Your task to perform on an android device: turn off airplane mode Image 0: 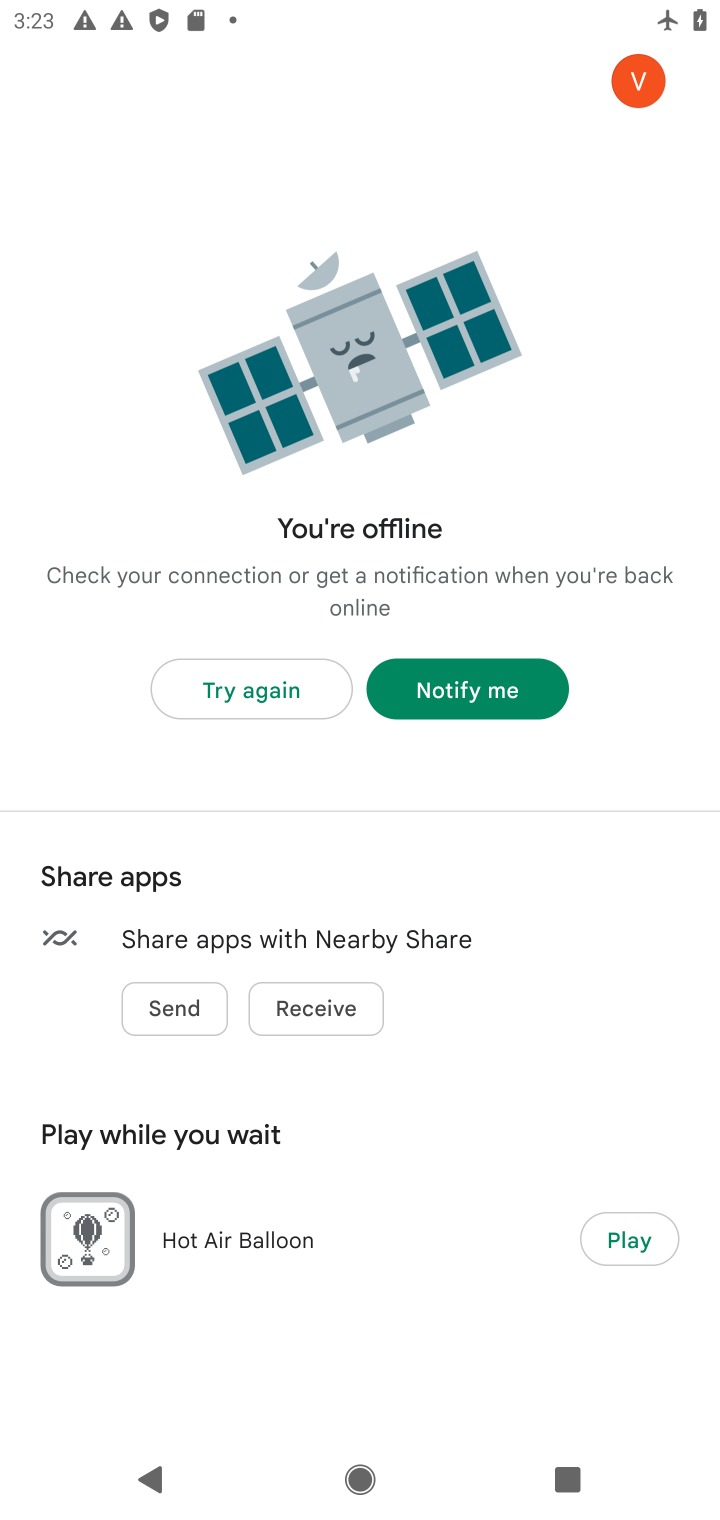
Step 0: press home button
Your task to perform on an android device: turn off airplane mode Image 1: 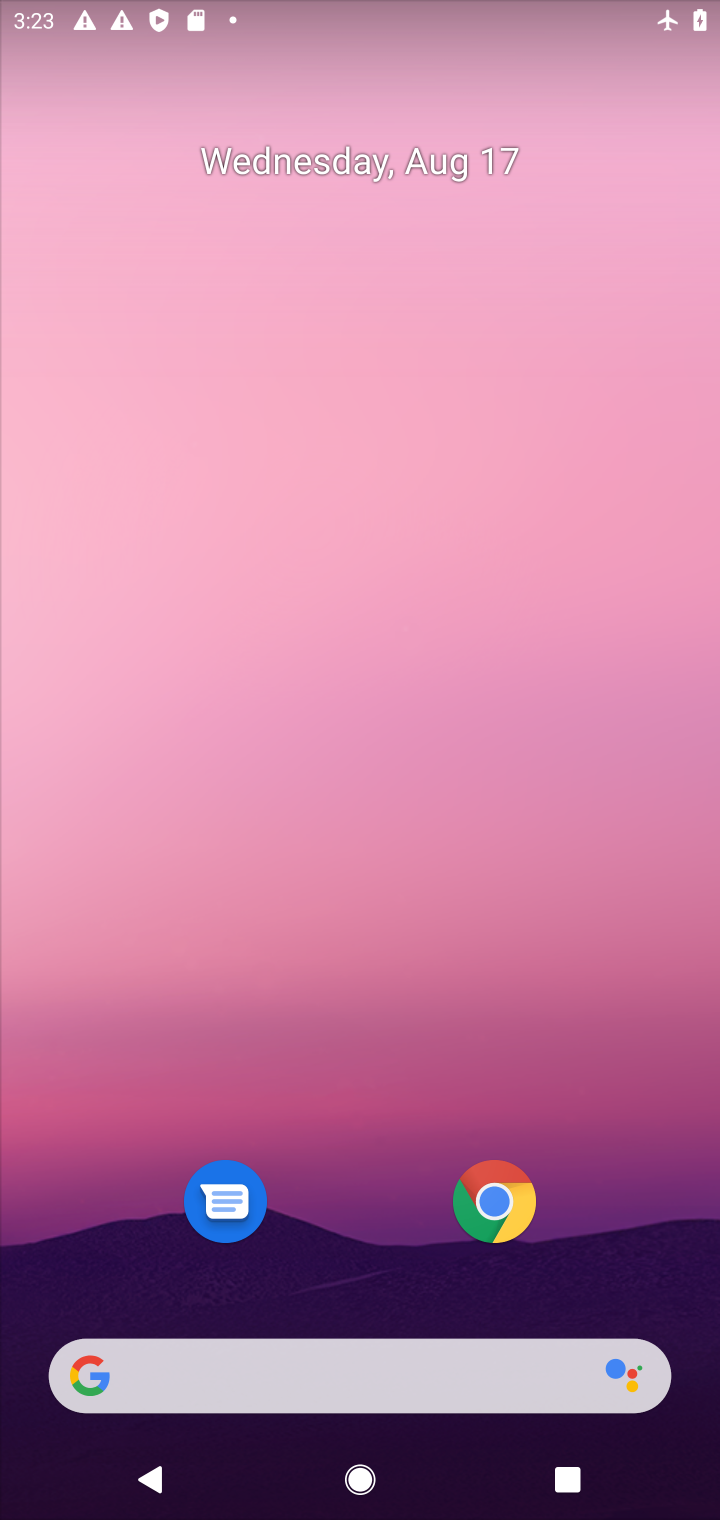
Step 1: drag from (390, 631) to (457, 114)
Your task to perform on an android device: turn off airplane mode Image 2: 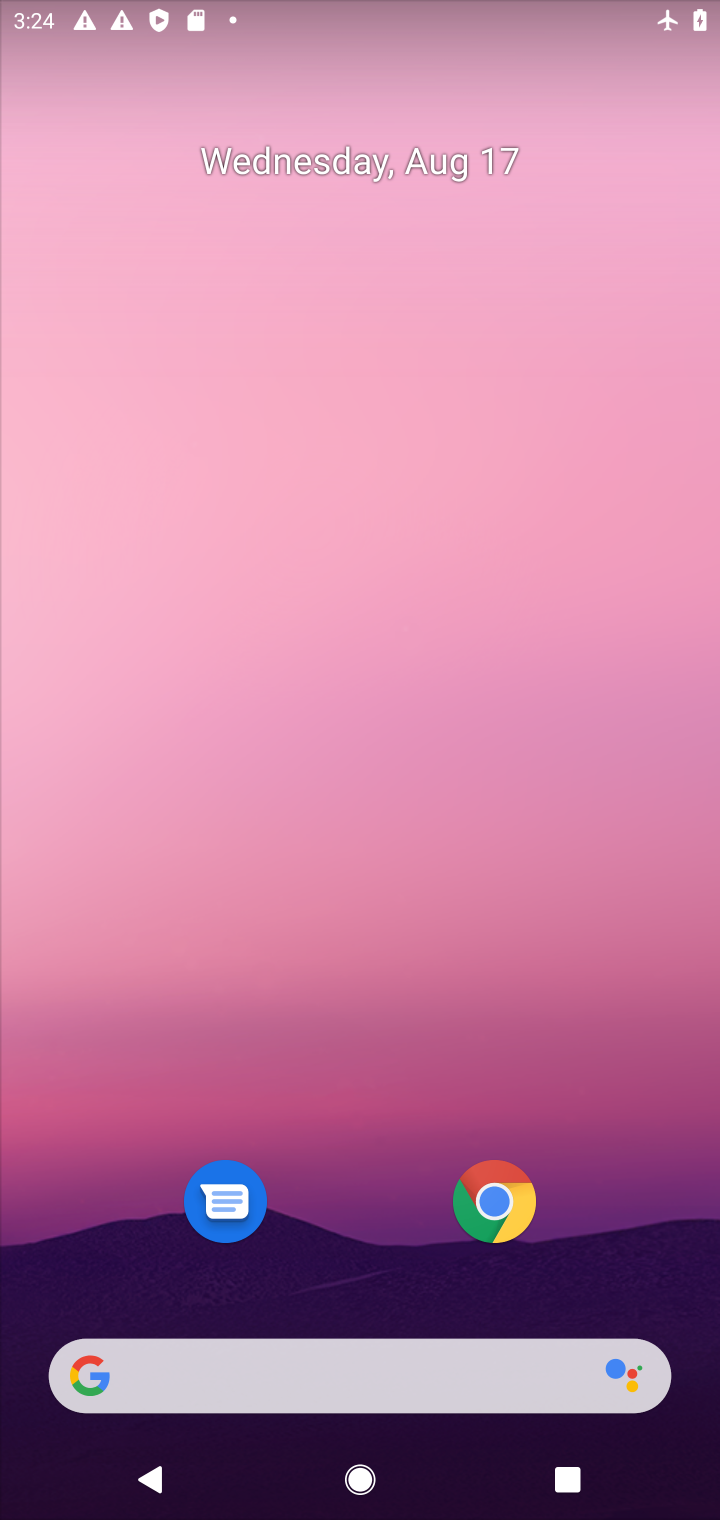
Step 2: drag from (368, 1034) to (404, 0)
Your task to perform on an android device: turn off airplane mode Image 3: 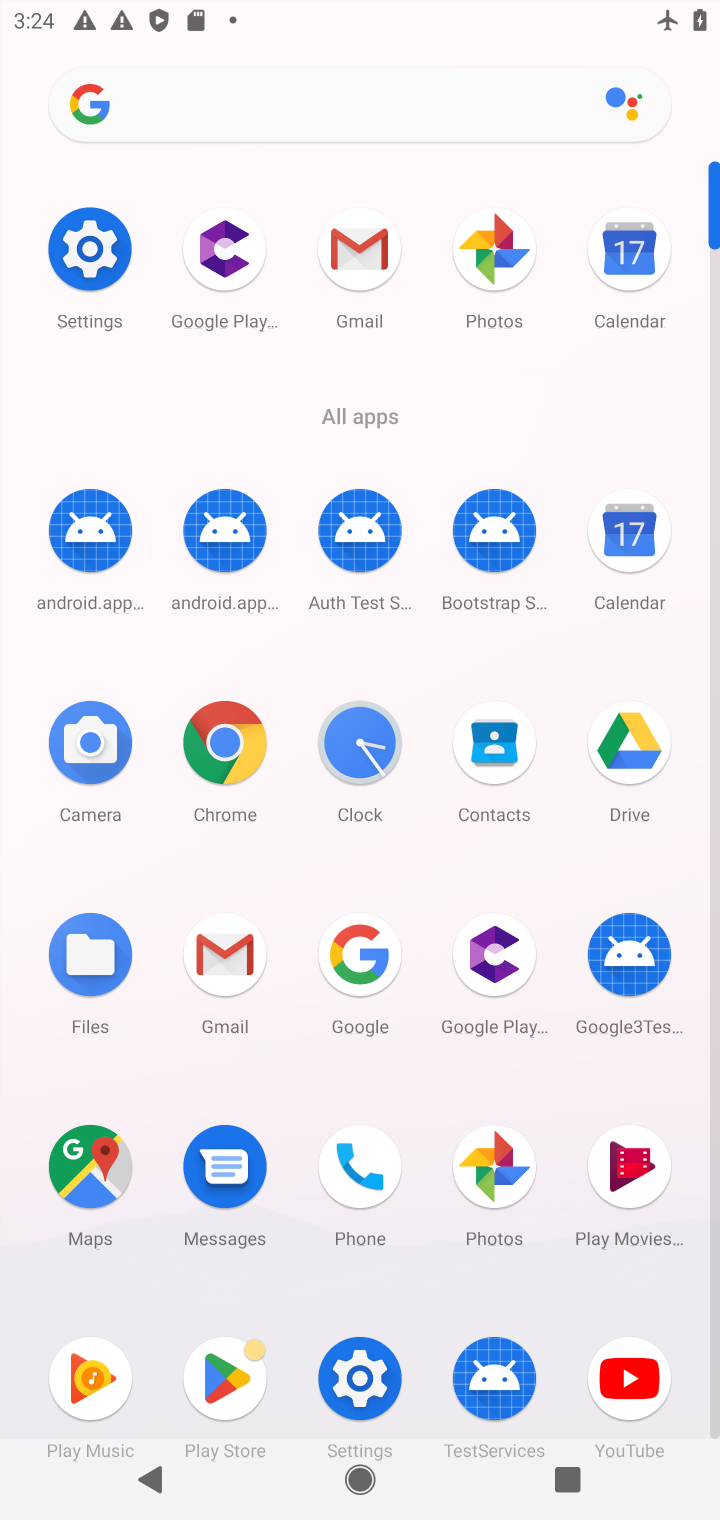
Step 3: click (71, 312)
Your task to perform on an android device: turn off airplane mode Image 4: 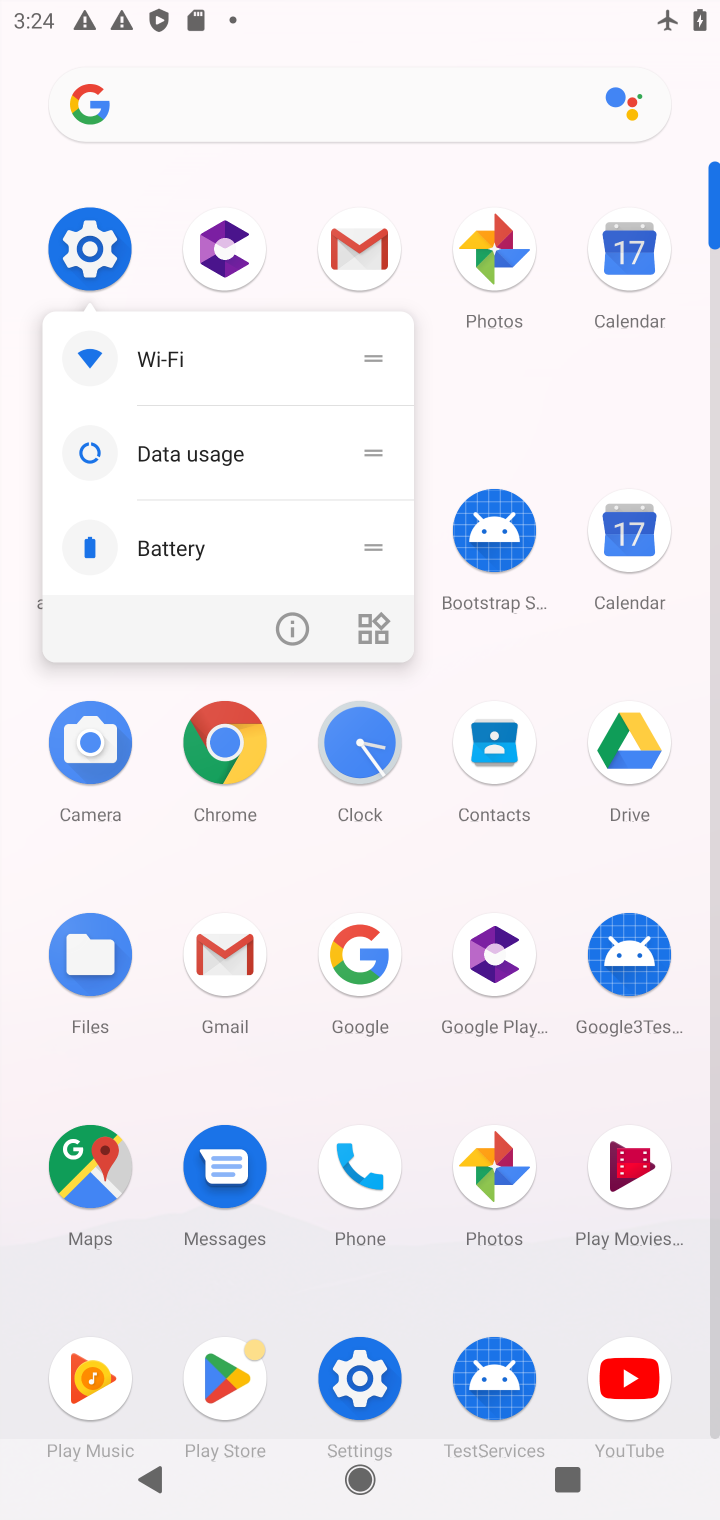
Step 4: click (72, 250)
Your task to perform on an android device: turn off airplane mode Image 5: 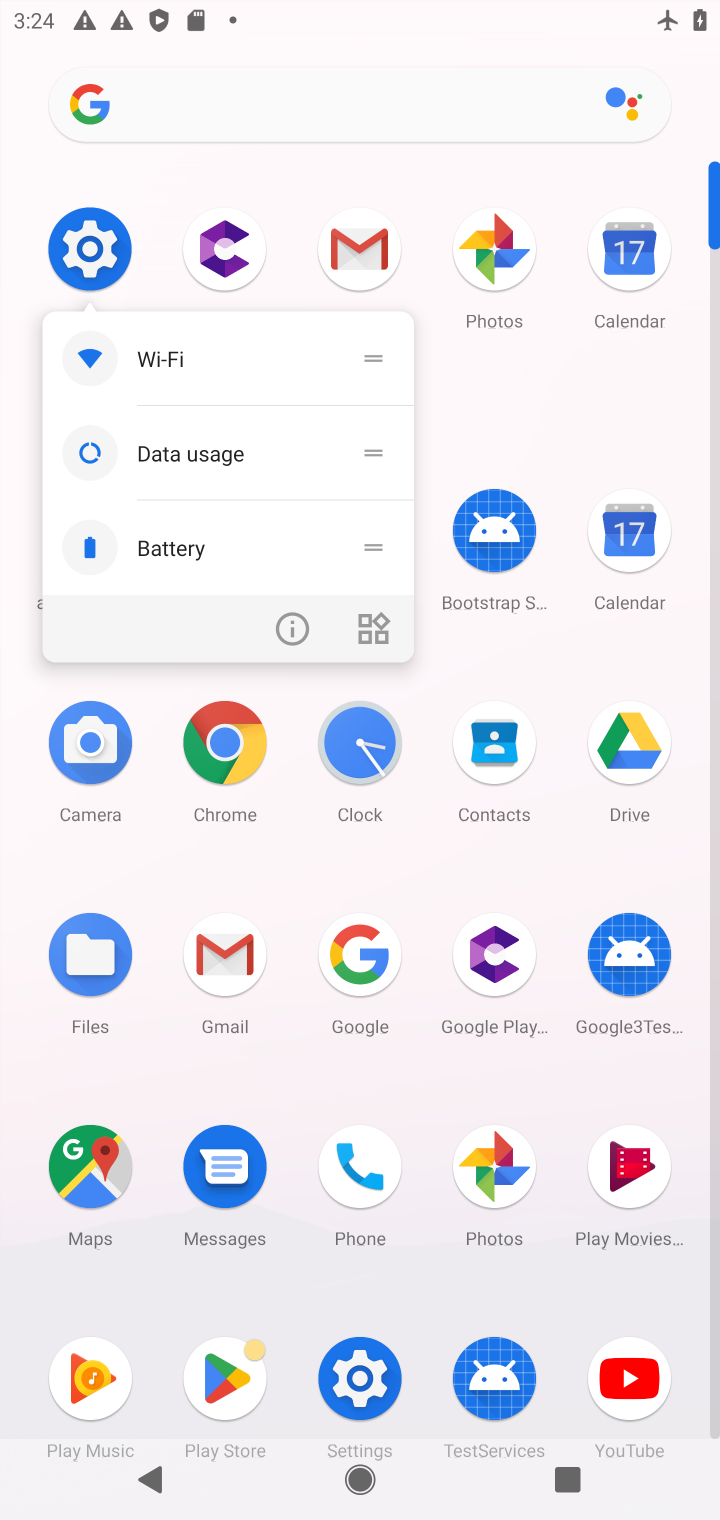
Step 5: click (41, 238)
Your task to perform on an android device: turn off airplane mode Image 6: 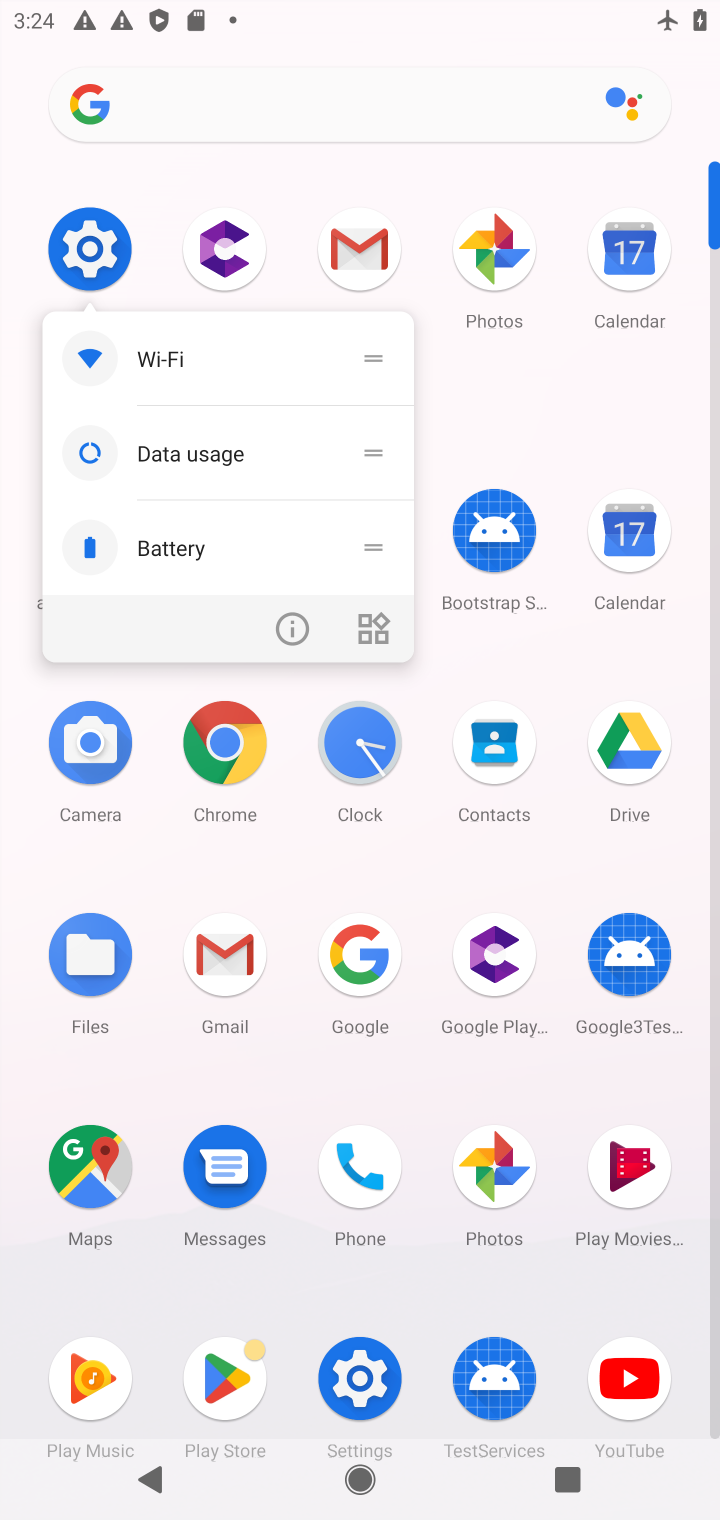
Step 6: click (78, 248)
Your task to perform on an android device: turn off airplane mode Image 7: 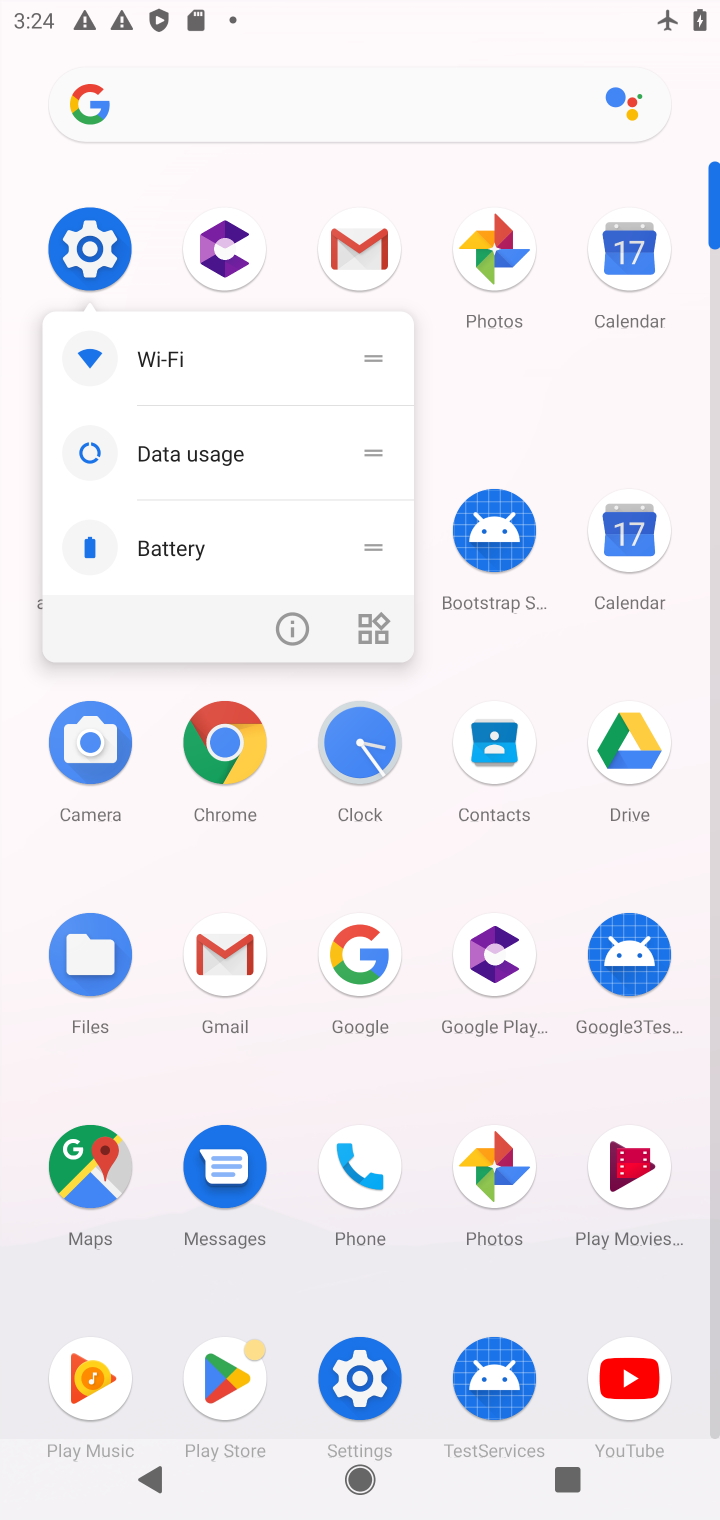
Step 7: click (117, 225)
Your task to perform on an android device: turn off airplane mode Image 8: 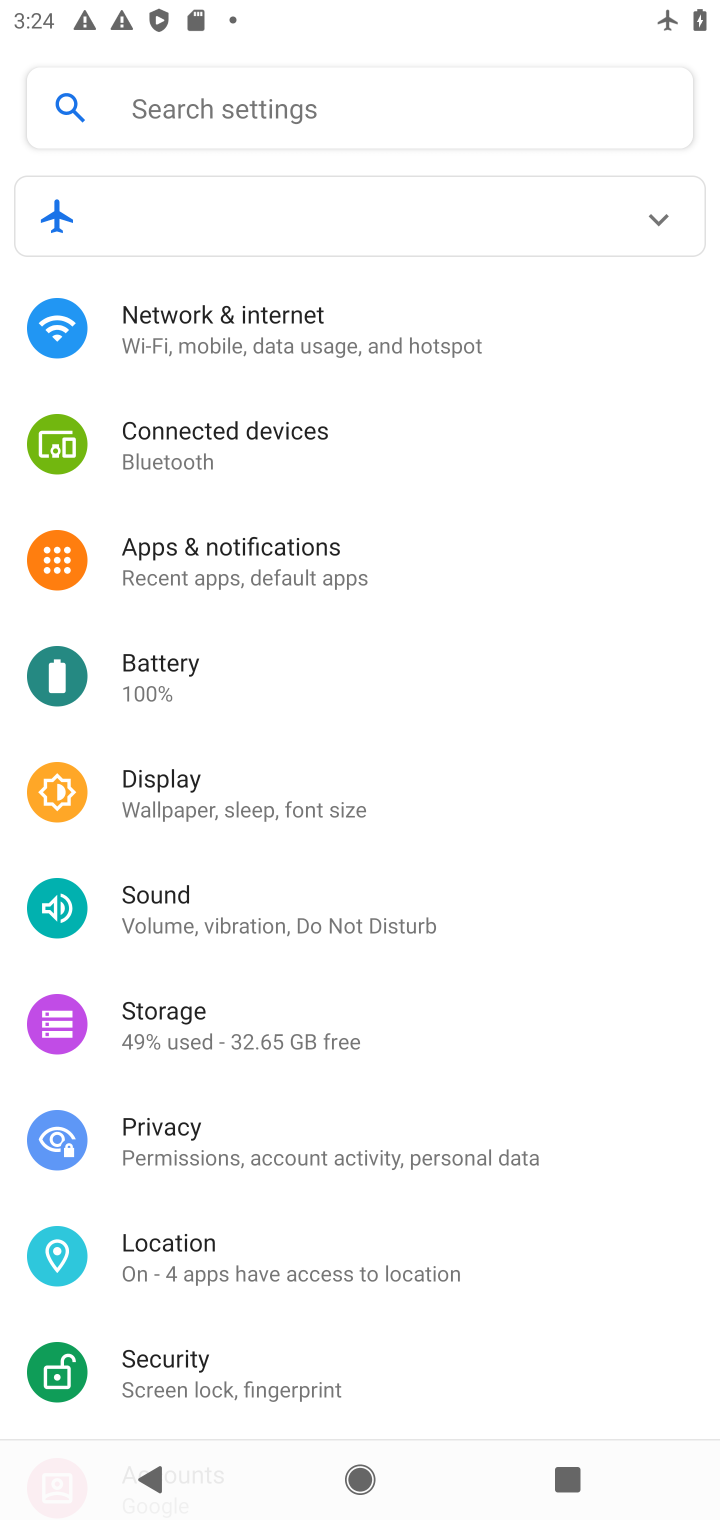
Step 8: click (301, 340)
Your task to perform on an android device: turn off airplane mode Image 9: 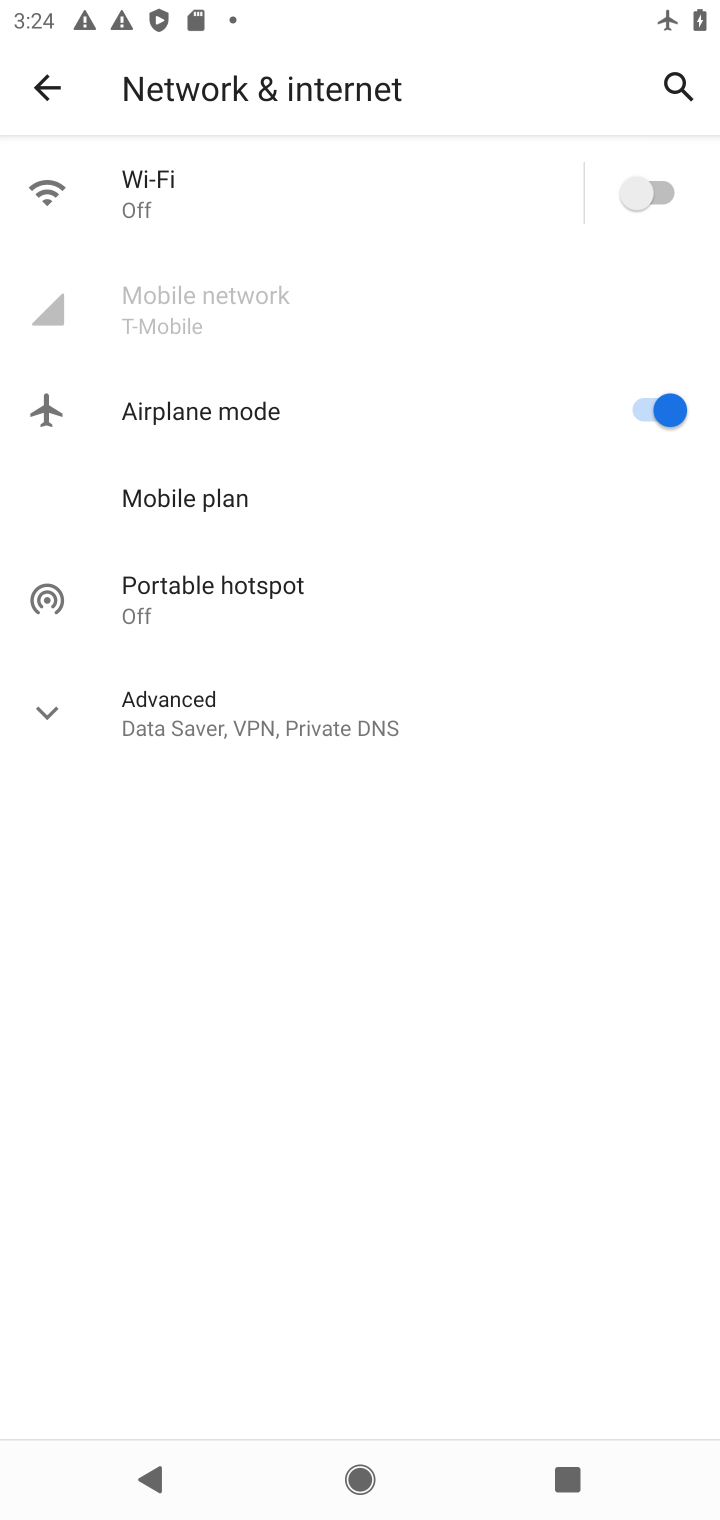
Step 9: click (631, 413)
Your task to perform on an android device: turn off airplane mode Image 10: 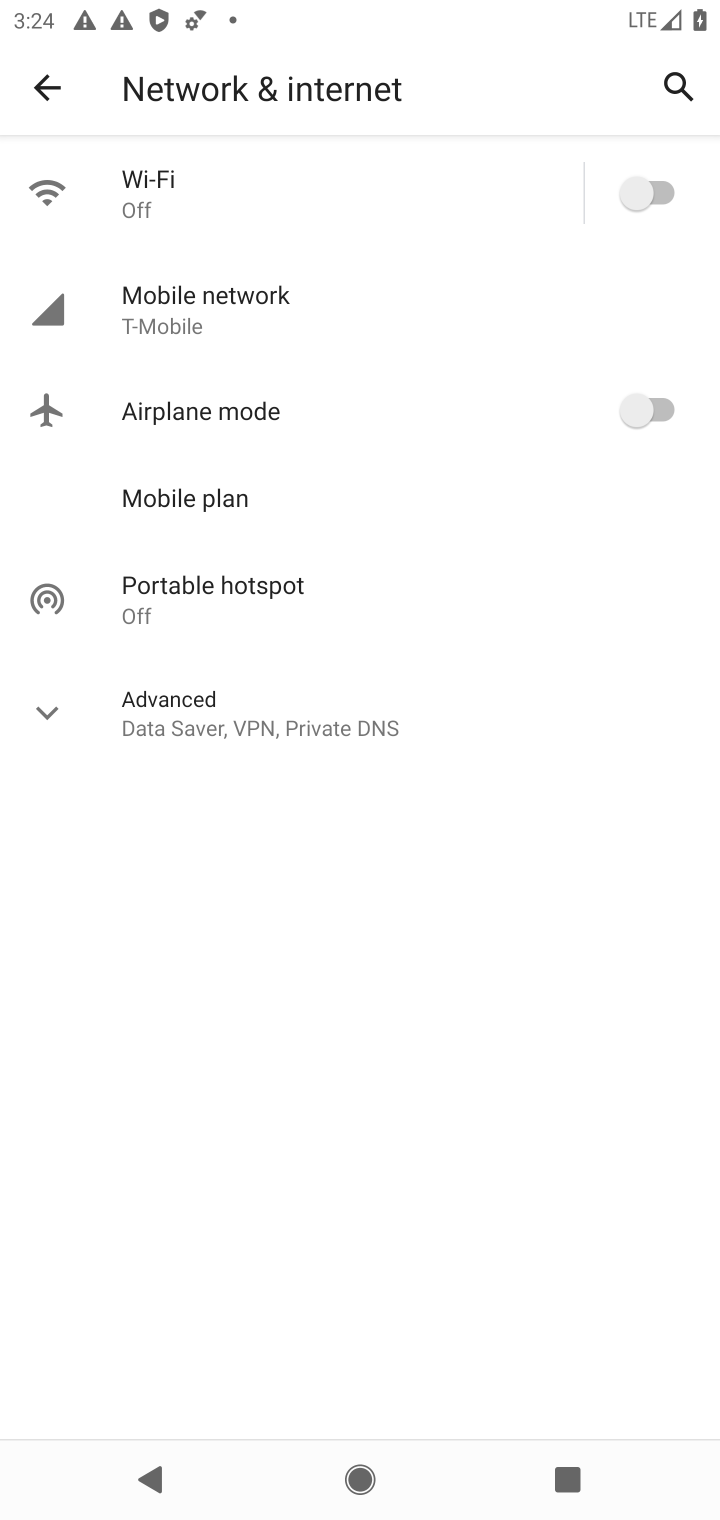
Step 10: task complete